Your task to perform on an android device: change the clock style Image 0: 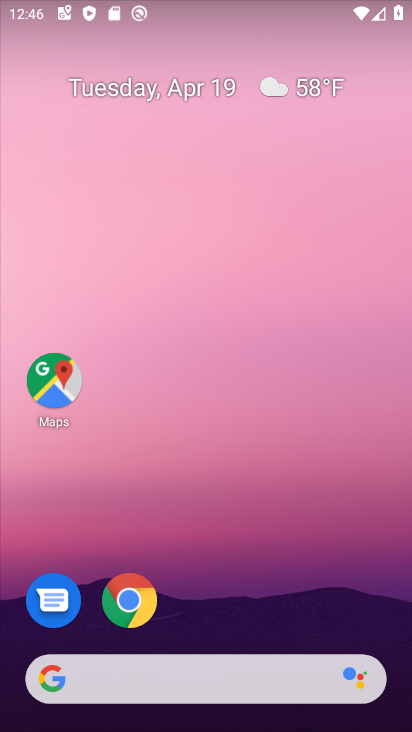
Step 0: drag from (205, 458) to (239, 16)
Your task to perform on an android device: change the clock style Image 1: 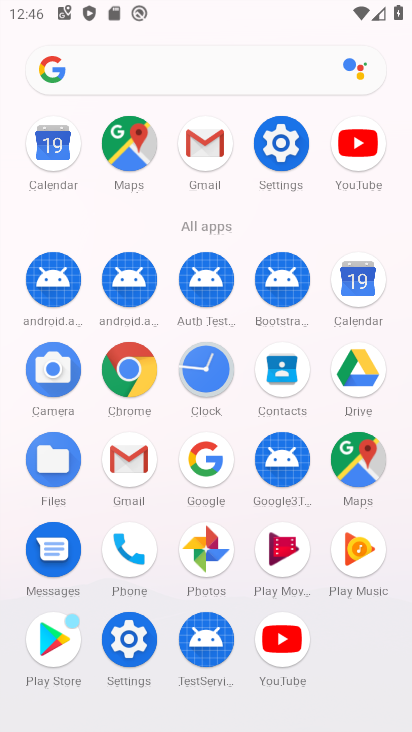
Step 1: click (204, 385)
Your task to perform on an android device: change the clock style Image 2: 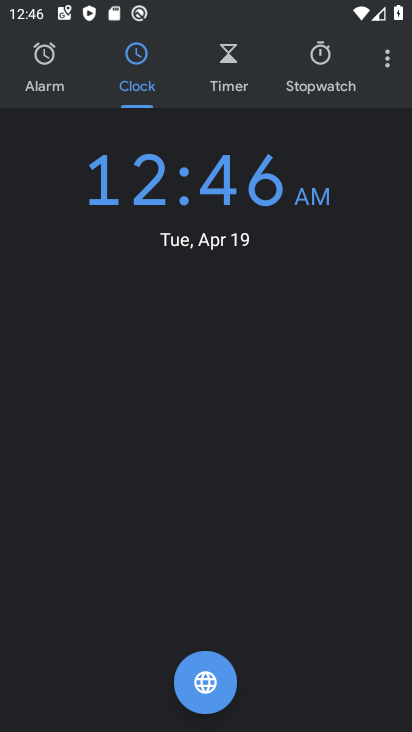
Step 2: click (388, 63)
Your task to perform on an android device: change the clock style Image 3: 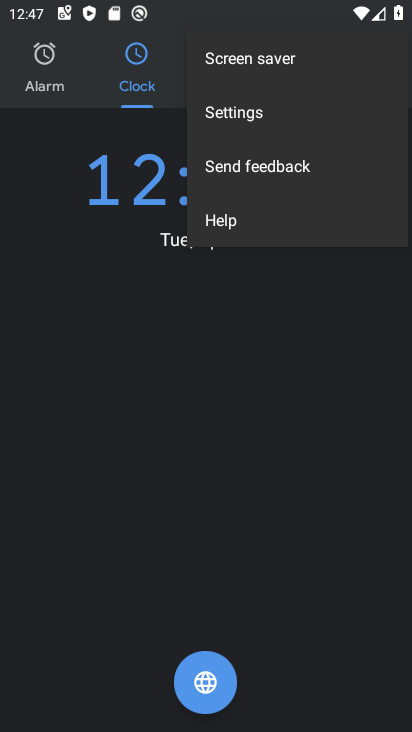
Step 3: click (250, 109)
Your task to perform on an android device: change the clock style Image 4: 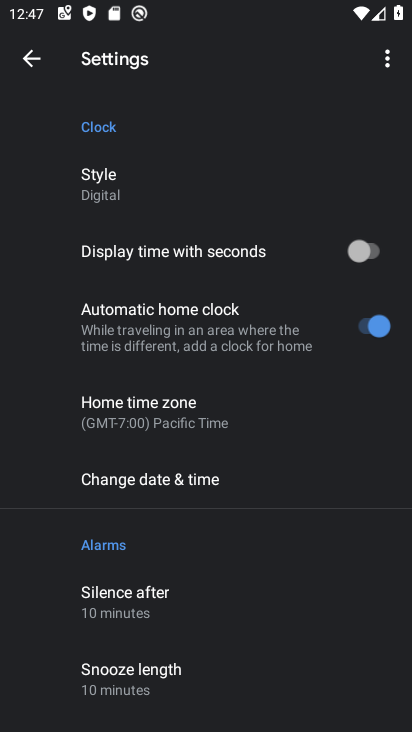
Step 4: click (160, 186)
Your task to perform on an android device: change the clock style Image 5: 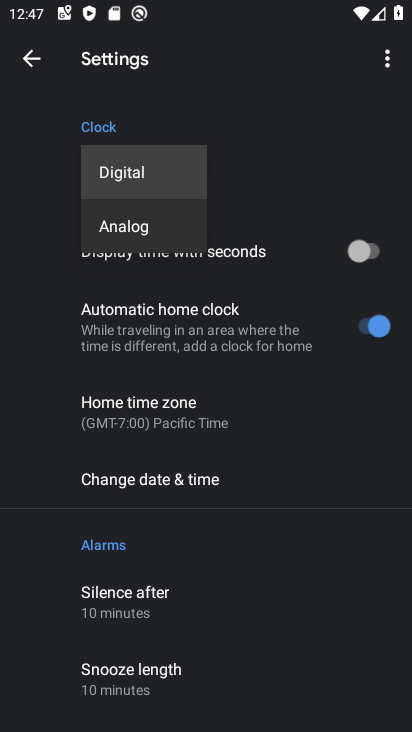
Step 5: click (160, 186)
Your task to perform on an android device: change the clock style Image 6: 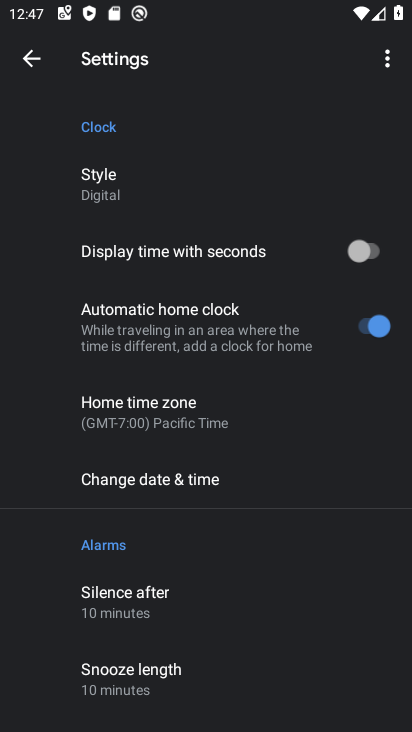
Step 6: click (154, 189)
Your task to perform on an android device: change the clock style Image 7: 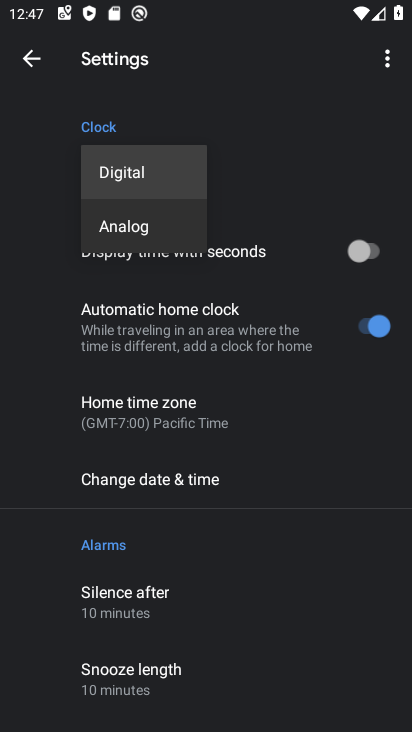
Step 7: click (159, 238)
Your task to perform on an android device: change the clock style Image 8: 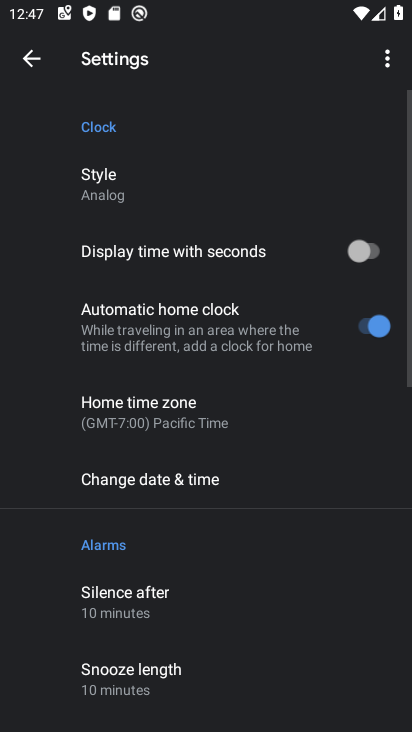
Step 8: task complete